Your task to perform on an android device: snooze an email in the gmail app Image 0: 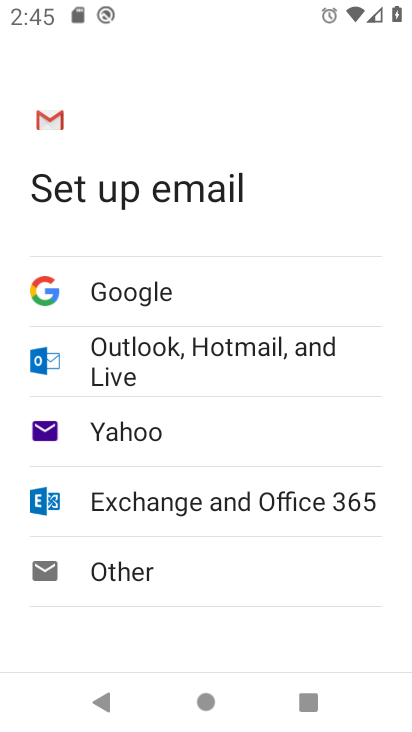
Step 0: press home button
Your task to perform on an android device: snooze an email in the gmail app Image 1: 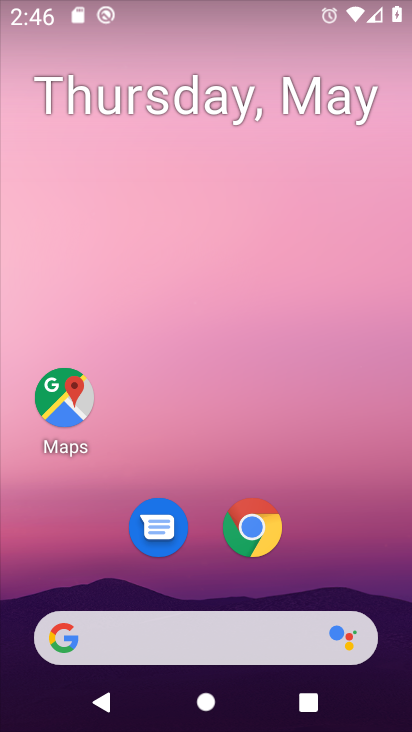
Step 1: drag from (319, 489) to (367, 96)
Your task to perform on an android device: snooze an email in the gmail app Image 2: 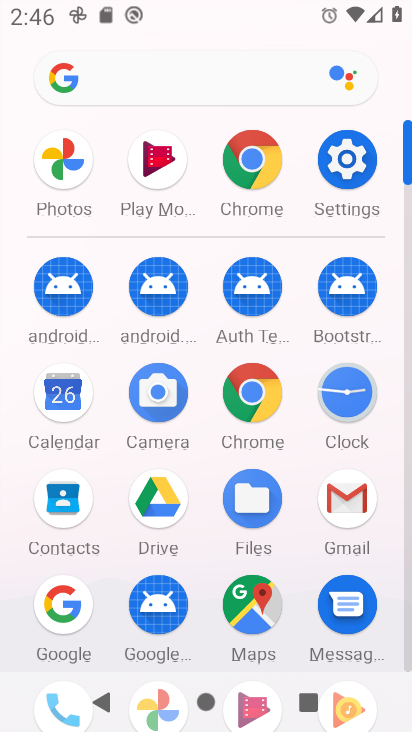
Step 2: drag from (319, 556) to (286, 130)
Your task to perform on an android device: snooze an email in the gmail app Image 3: 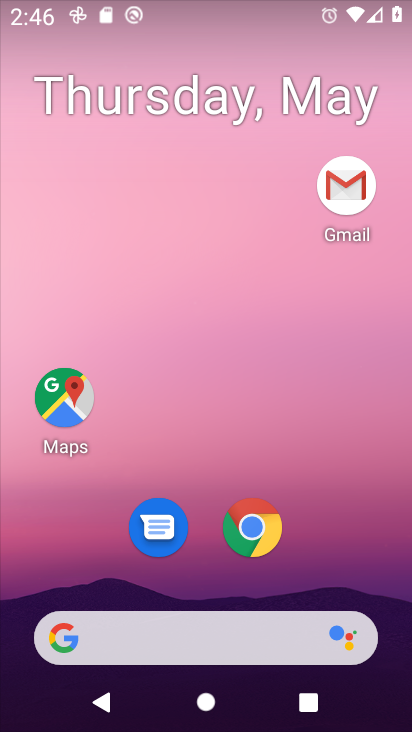
Step 3: click (347, 501)
Your task to perform on an android device: snooze an email in the gmail app Image 4: 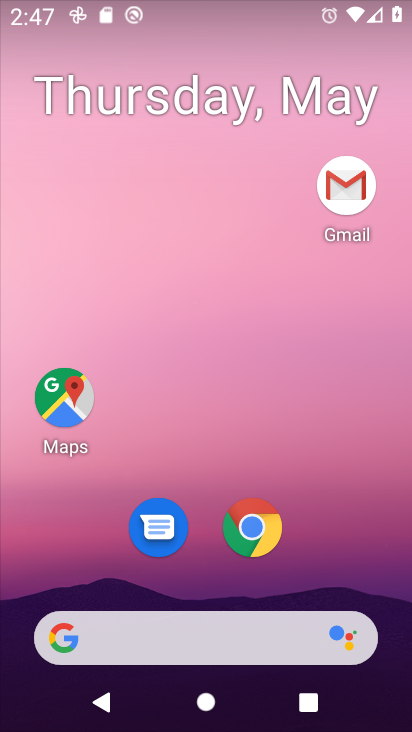
Step 4: click (346, 185)
Your task to perform on an android device: snooze an email in the gmail app Image 5: 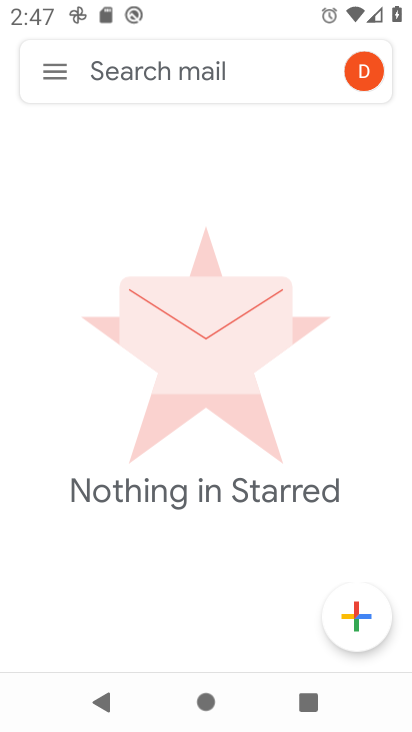
Step 5: click (338, 186)
Your task to perform on an android device: snooze an email in the gmail app Image 6: 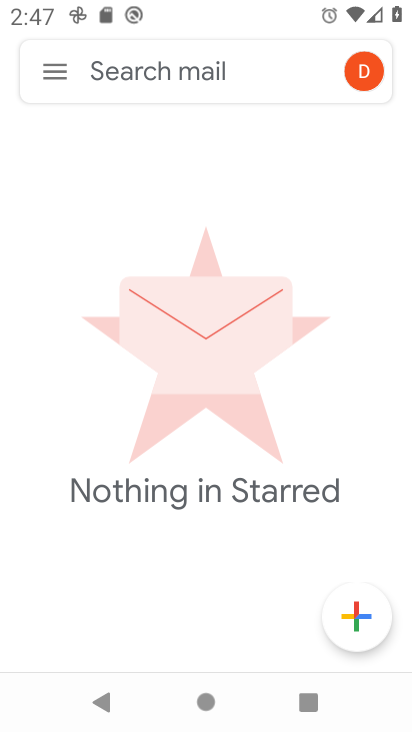
Step 6: task complete